Your task to perform on an android device: Open calendar and show me the fourth week of next month Image 0: 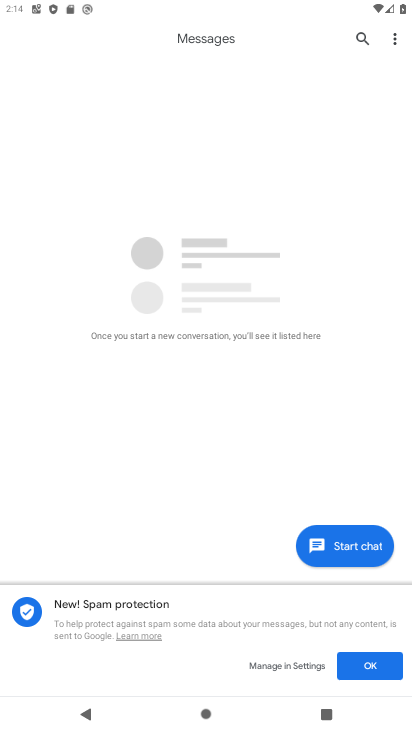
Step 0: press home button
Your task to perform on an android device: Open calendar and show me the fourth week of next month Image 1: 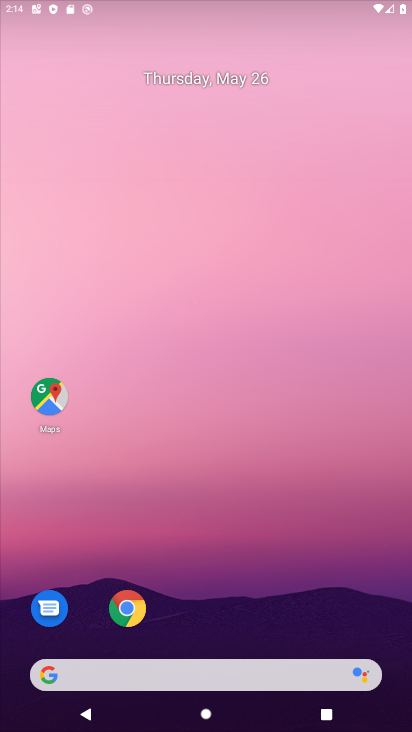
Step 1: drag from (297, 462) to (296, 1)
Your task to perform on an android device: Open calendar and show me the fourth week of next month Image 2: 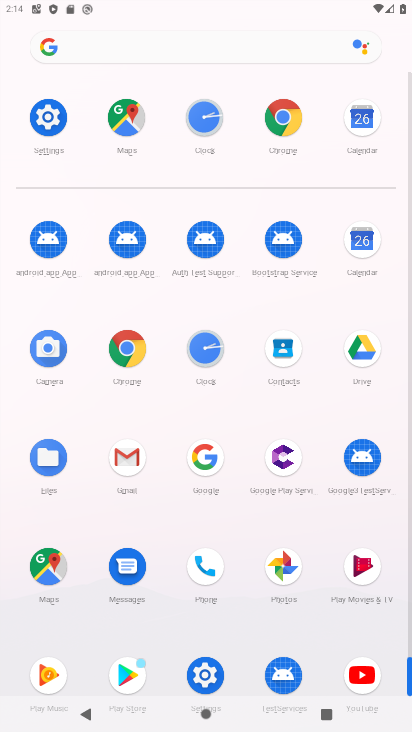
Step 2: click (362, 108)
Your task to perform on an android device: Open calendar and show me the fourth week of next month Image 3: 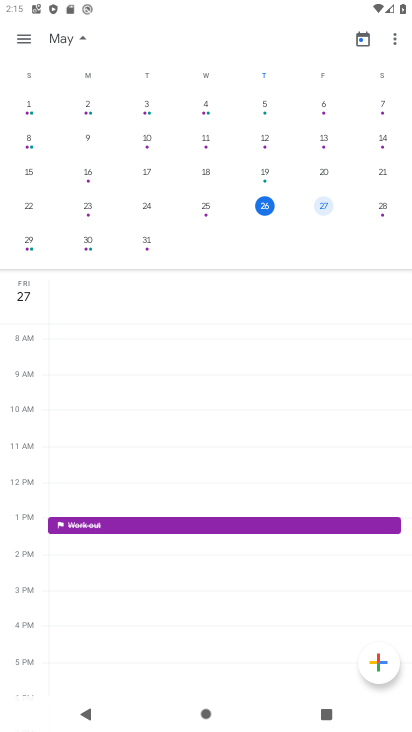
Step 3: drag from (341, 179) to (0, 207)
Your task to perform on an android device: Open calendar and show me the fourth week of next month Image 4: 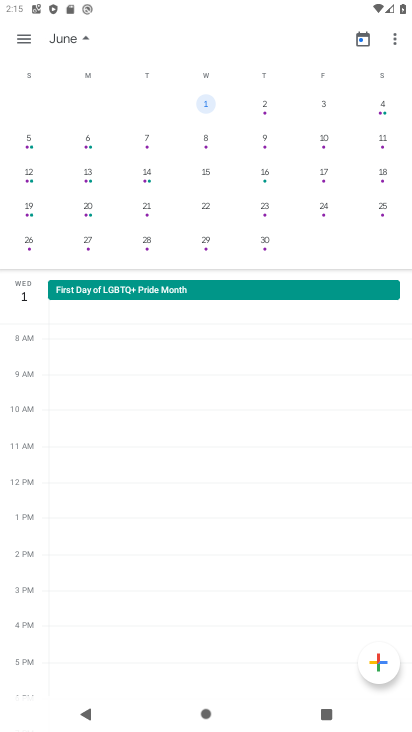
Step 4: click (151, 242)
Your task to perform on an android device: Open calendar and show me the fourth week of next month Image 5: 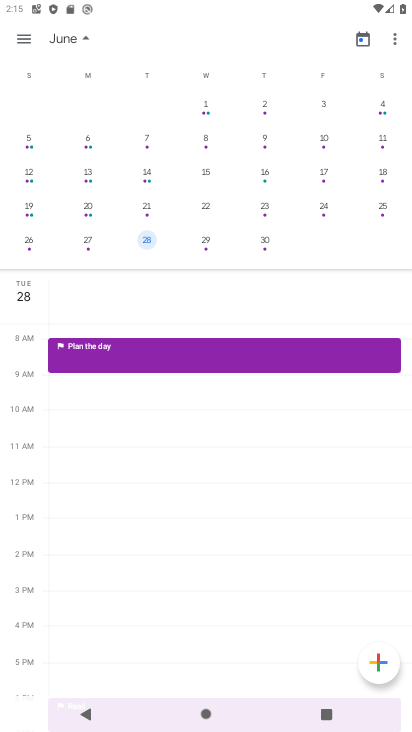
Step 5: task complete